Your task to perform on an android device: change the clock display to digital Image 0: 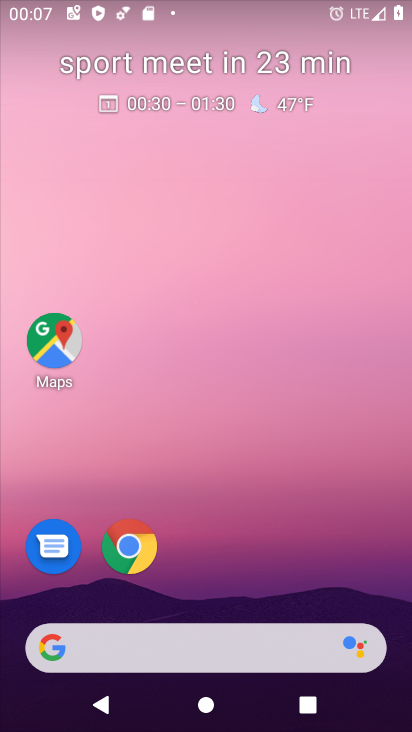
Step 0: drag from (360, 600) to (358, 46)
Your task to perform on an android device: change the clock display to digital Image 1: 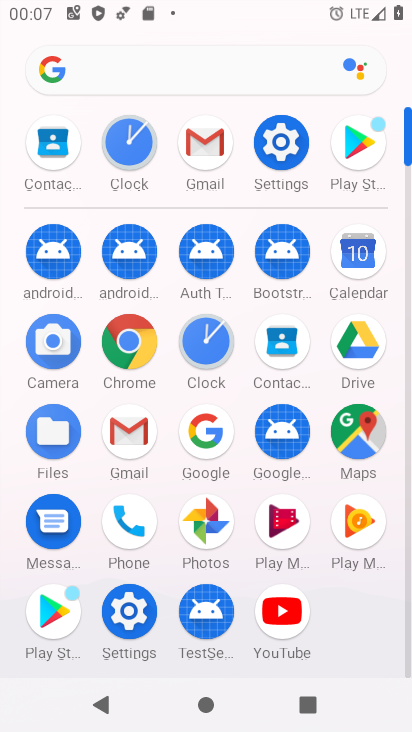
Step 1: click (129, 147)
Your task to perform on an android device: change the clock display to digital Image 2: 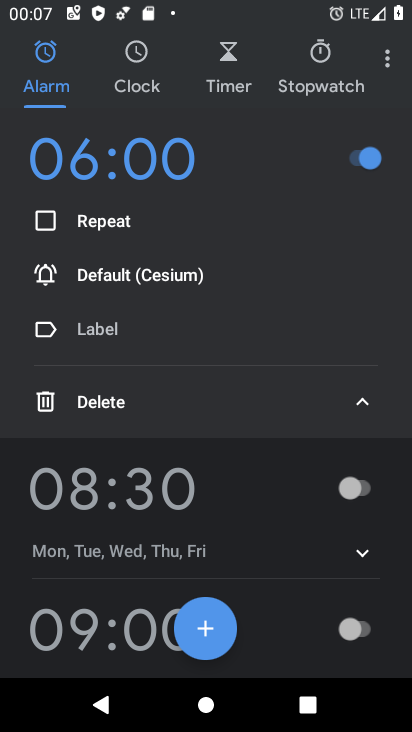
Step 2: click (391, 55)
Your task to perform on an android device: change the clock display to digital Image 3: 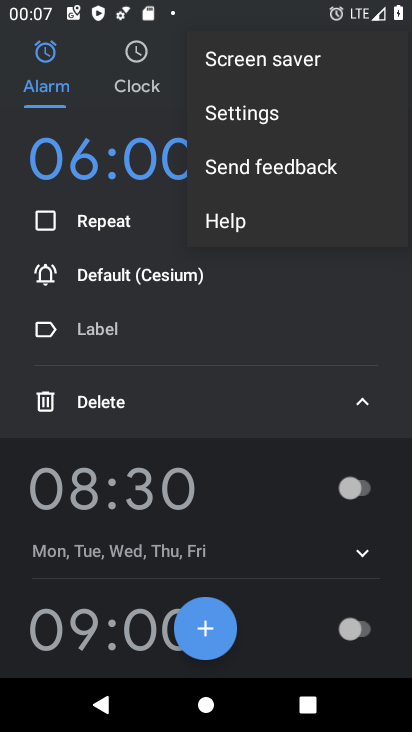
Step 3: click (247, 120)
Your task to perform on an android device: change the clock display to digital Image 4: 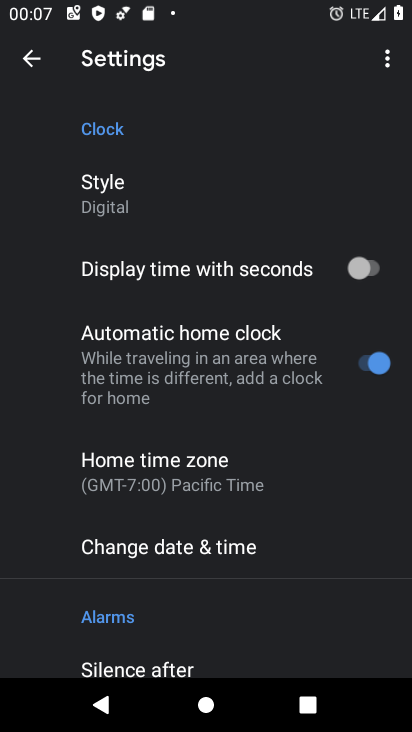
Step 4: task complete